Your task to perform on an android device: Open Google Maps Image 0: 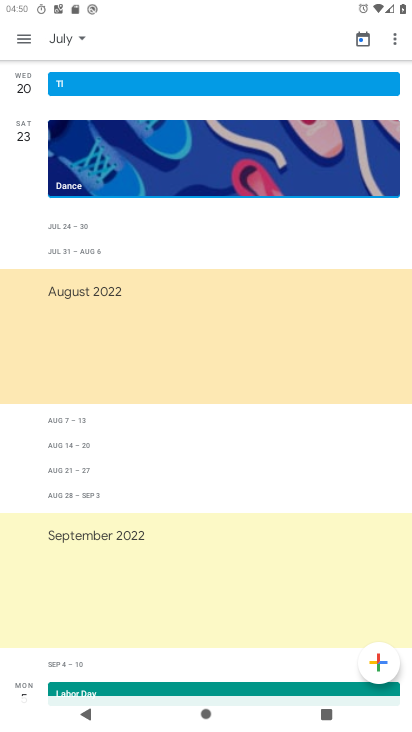
Step 0: press home button
Your task to perform on an android device: Open Google Maps Image 1: 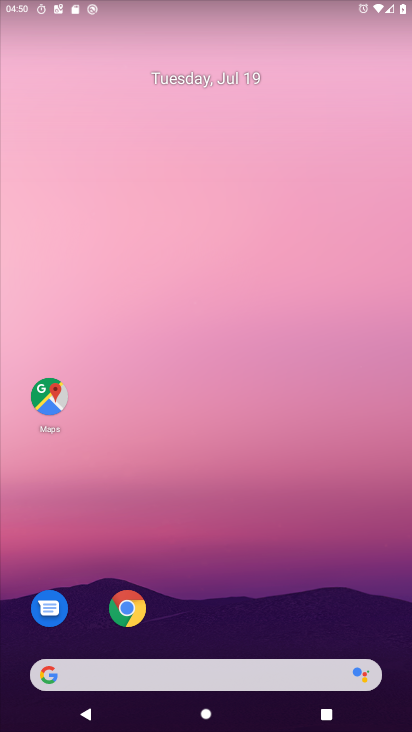
Step 1: click (48, 396)
Your task to perform on an android device: Open Google Maps Image 2: 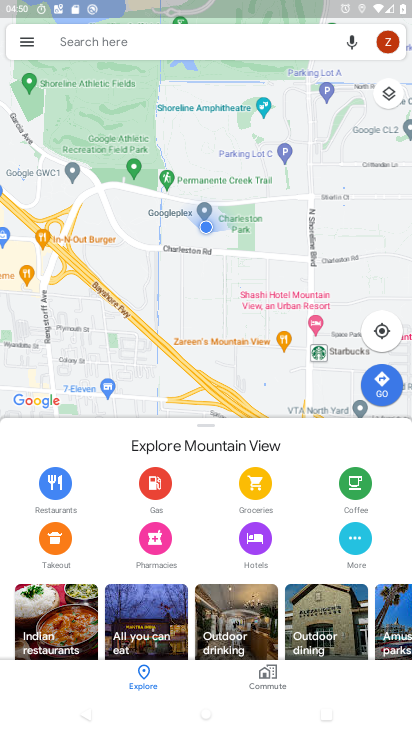
Step 2: task complete